Your task to perform on an android device: add a contact in the contacts app Image 0: 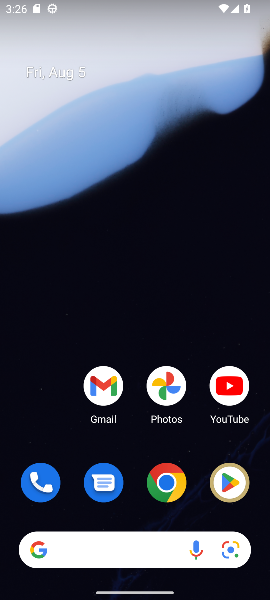
Step 0: press home button
Your task to perform on an android device: add a contact in the contacts app Image 1: 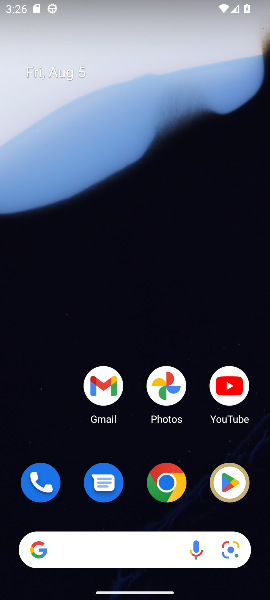
Step 1: drag from (127, 454) to (215, 28)
Your task to perform on an android device: add a contact in the contacts app Image 2: 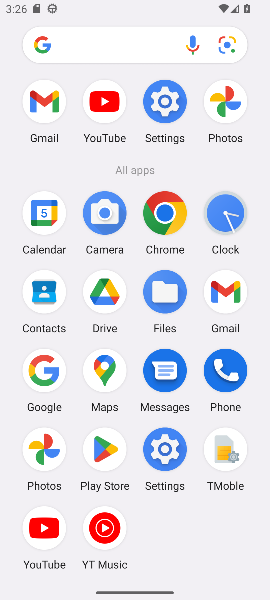
Step 2: click (41, 286)
Your task to perform on an android device: add a contact in the contacts app Image 3: 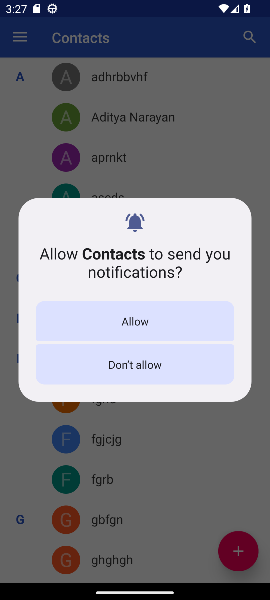
Step 3: click (137, 321)
Your task to perform on an android device: add a contact in the contacts app Image 4: 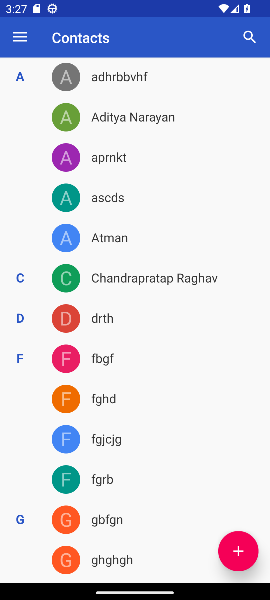
Step 4: click (240, 548)
Your task to perform on an android device: add a contact in the contacts app Image 5: 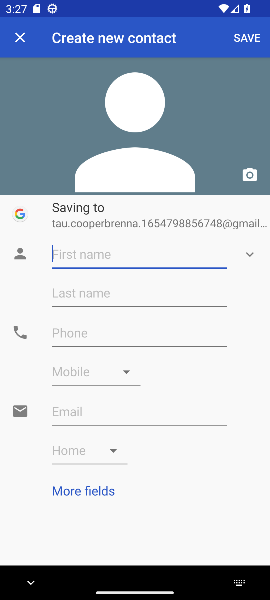
Step 5: type "fdhj"
Your task to perform on an android device: add a contact in the contacts app Image 6: 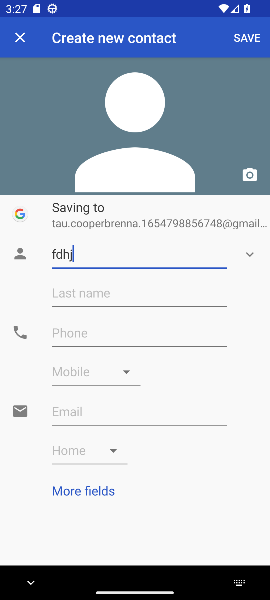
Step 6: click (248, 41)
Your task to perform on an android device: add a contact in the contacts app Image 7: 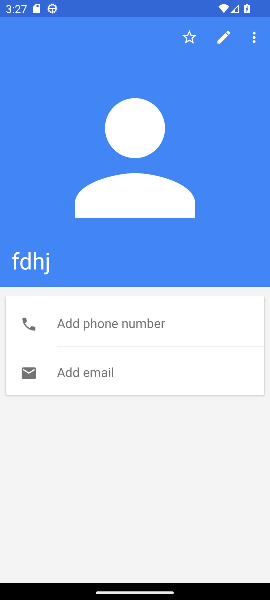
Step 7: task complete